Your task to perform on an android device: snooze an email in the gmail app Image 0: 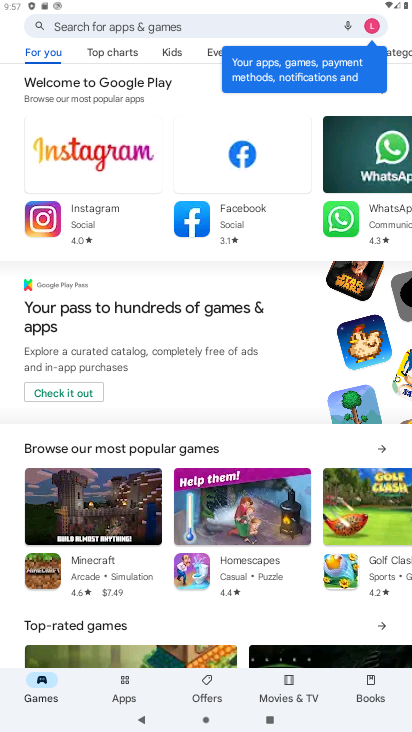
Step 0: press home button
Your task to perform on an android device: snooze an email in the gmail app Image 1: 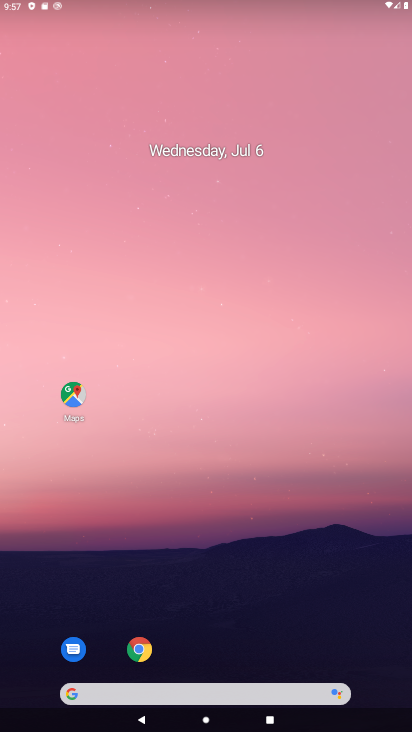
Step 1: drag from (343, 479) to (309, 149)
Your task to perform on an android device: snooze an email in the gmail app Image 2: 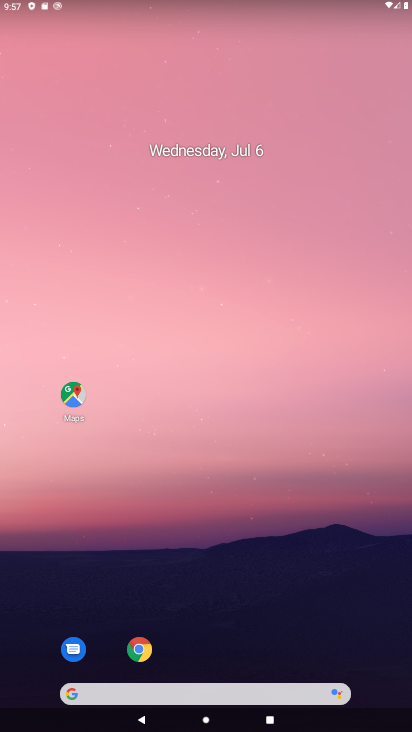
Step 2: drag from (308, 558) to (282, 186)
Your task to perform on an android device: snooze an email in the gmail app Image 3: 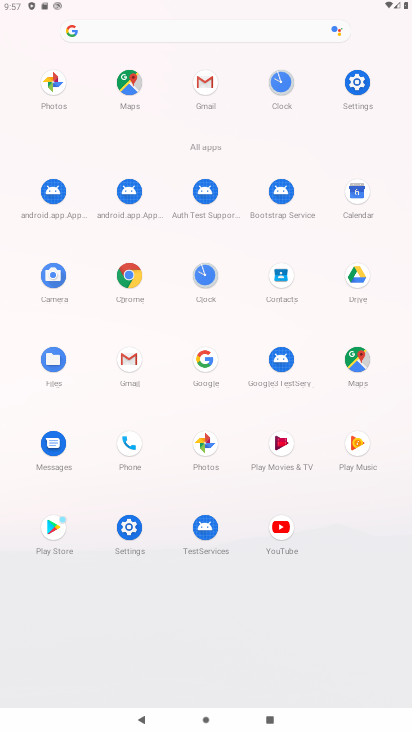
Step 3: click (188, 87)
Your task to perform on an android device: snooze an email in the gmail app Image 4: 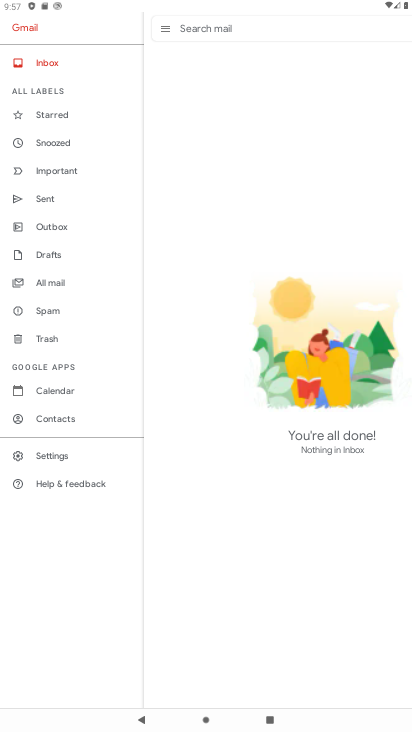
Step 4: task complete